Your task to perform on an android device: add a label to a message in the gmail app Image 0: 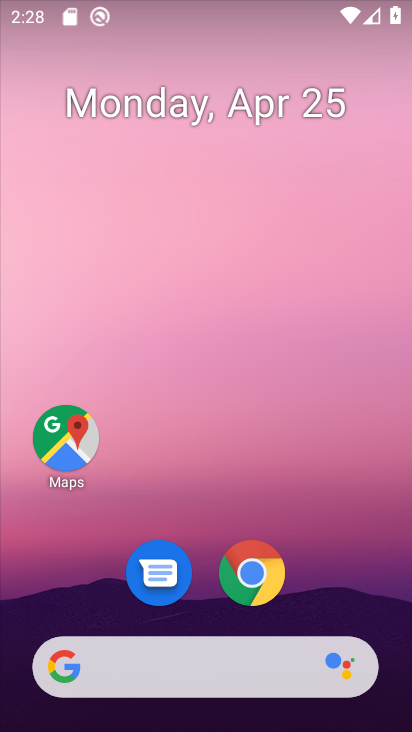
Step 0: drag from (333, 512) to (321, 91)
Your task to perform on an android device: add a label to a message in the gmail app Image 1: 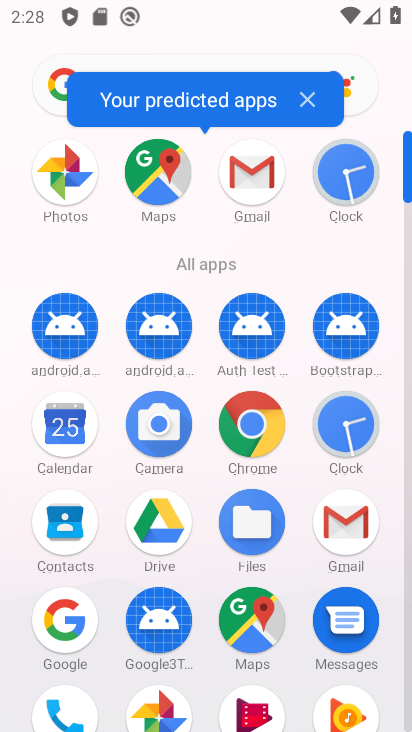
Step 1: click (257, 175)
Your task to perform on an android device: add a label to a message in the gmail app Image 2: 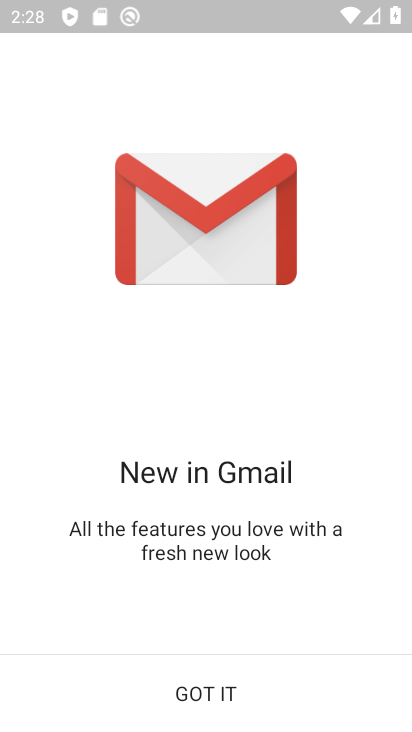
Step 2: click (256, 693)
Your task to perform on an android device: add a label to a message in the gmail app Image 3: 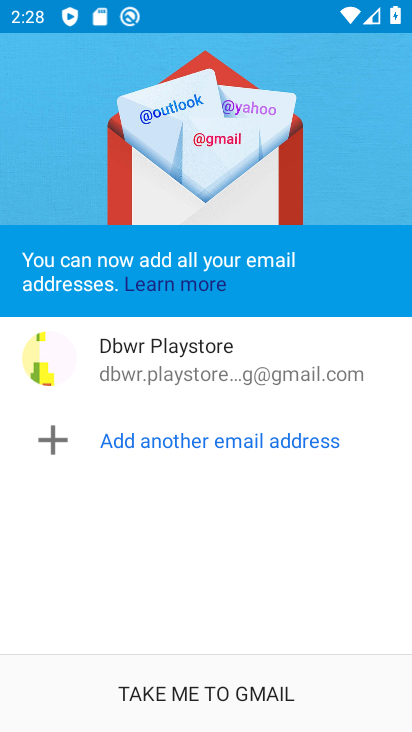
Step 3: click (268, 701)
Your task to perform on an android device: add a label to a message in the gmail app Image 4: 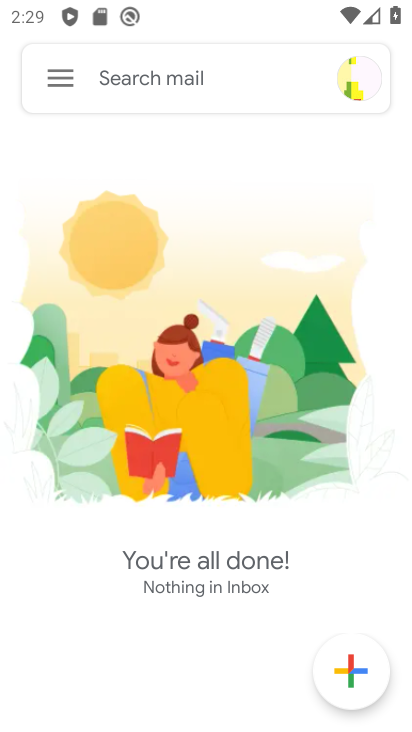
Step 4: click (73, 84)
Your task to perform on an android device: add a label to a message in the gmail app Image 5: 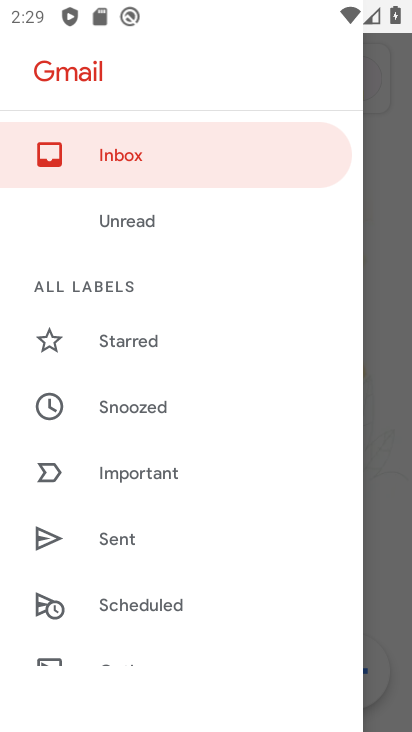
Step 5: drag from (197, 616) to (177, 54)
Your task to perform on an android device: add a label to a message in the gmail app Image 6: 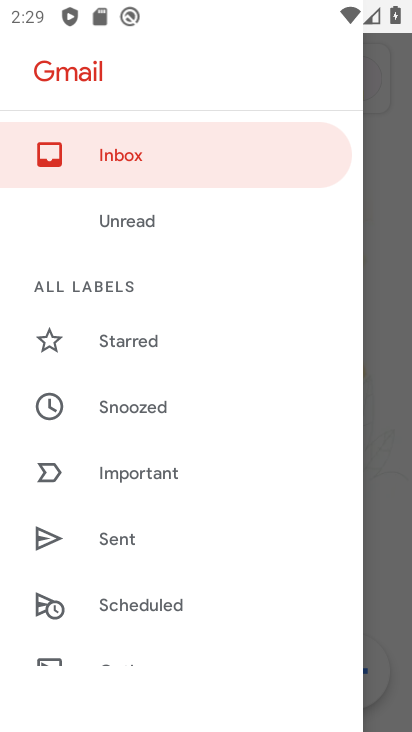
Step 6: drag from (164, 520) to (211, 115)
Your task to perform on an android device: add a label to a message in the gmail app Image 7: 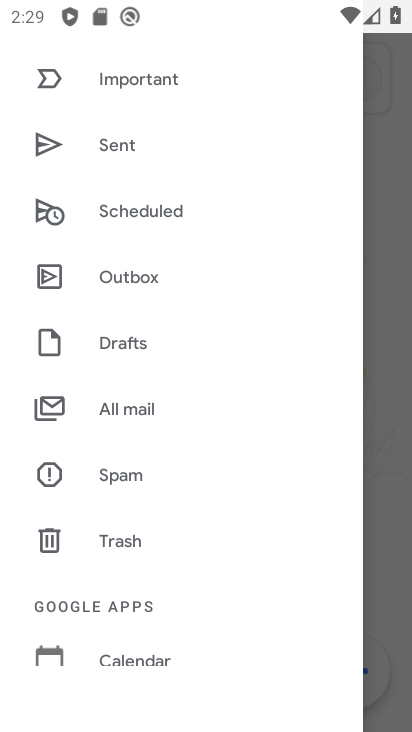
Step 7: drag from (156, 651) to (136, 404)
Your task to perform on an android device: add a label to a message in the gmail app Image 8: 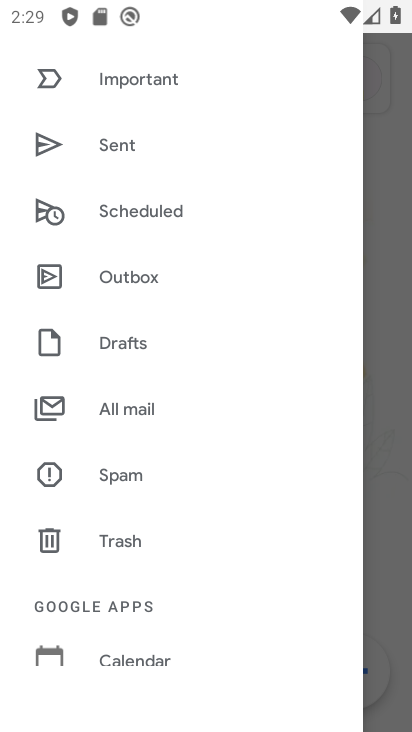
Step 8: click (137, 406)
Your task to perform on an android device: add a label to a message in the gmail app Image 9: 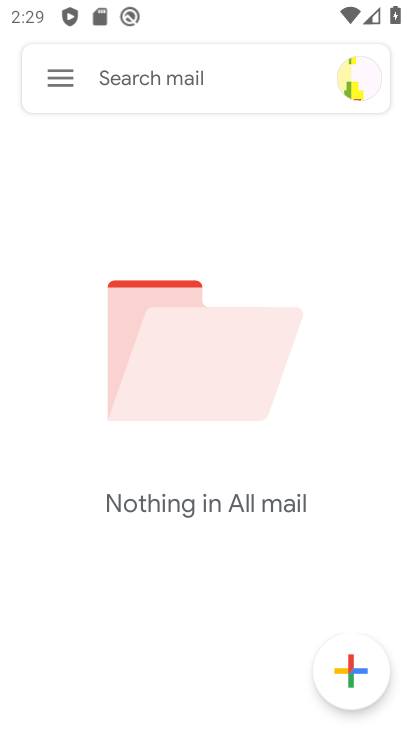
Step 9: task complete